Your task to perform on an android device: turn off airplane mode Image 0: 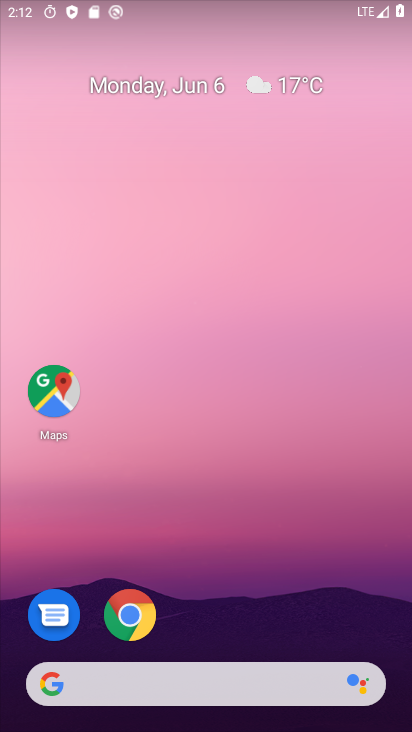
Step 0: drag from (199, 580) to (279, 219)
Your task to perform on an android device: turn off airplane mode Image 1: 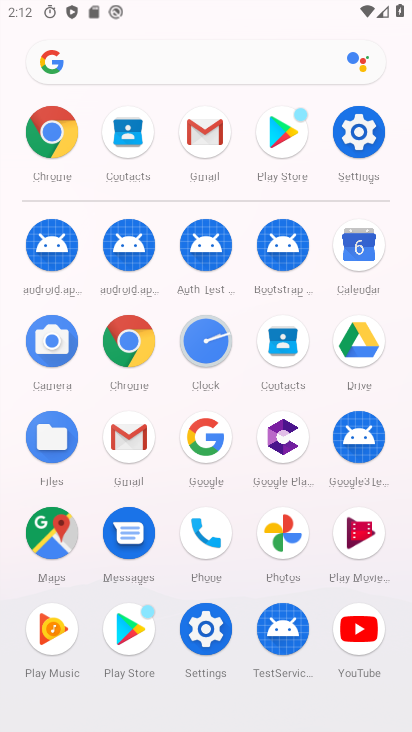
Step 1: task complete